Your task to perform on an android device: check google app version Image 0: 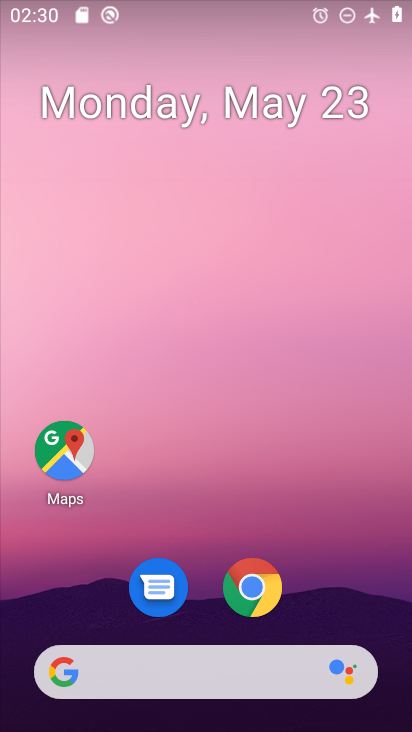
Step 0: click (263, 594)
Your task to perform on an android device: check google app version Image 1: 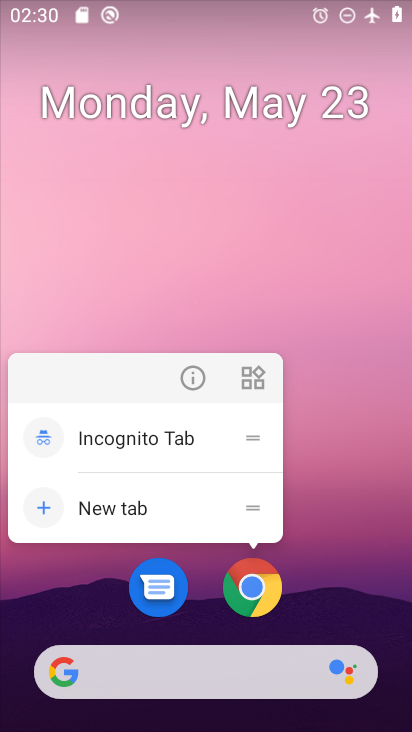
Step 1: click (197, 384)
Your task to perform on an android device: check google app version Image 2: 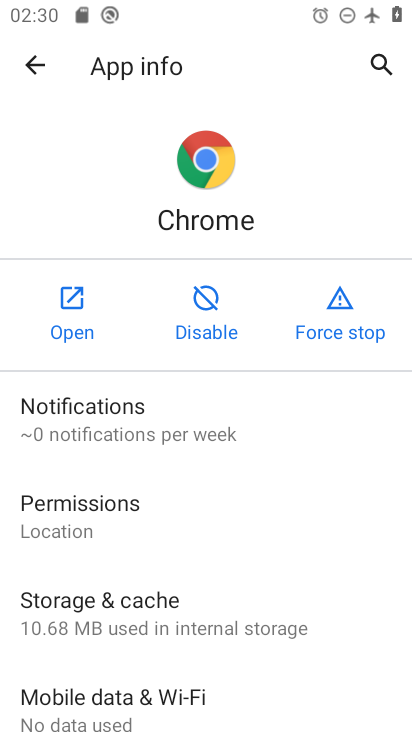
Step 2: task complete